Your task to perform on an android device: Open the phone app and click the voicemail tab. Image 0: 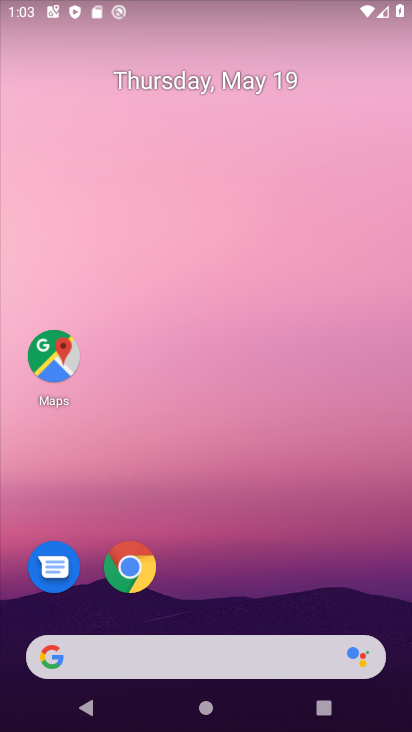
Step 0: drag from (125, 507) to (370, 129)
Your task to perform on an android device: Open the phone app and click the voicemail tab. Image 1: 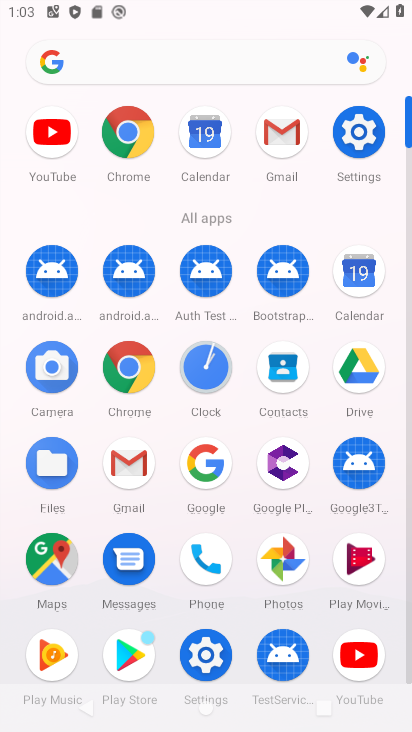
Step 1: click (205, 553)
Your task to perform on an android device: Open the phone app and click the voicemail tab. Image 2: 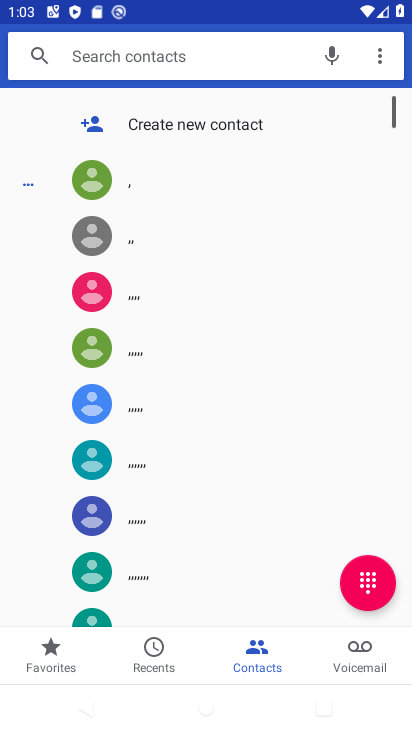
Step 2: click (353, 655)
Your task to perform on an android device: Open the phone app and click the voicemail tab. Image 3: 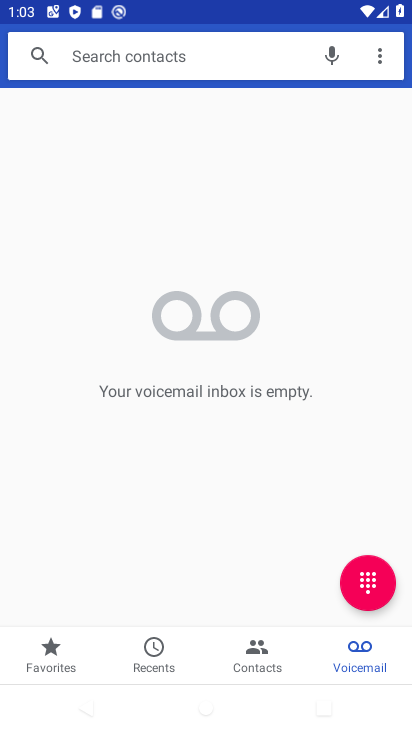
Step 3: task complete